Your task to perform on an android device: What's the weather today? Image 0: 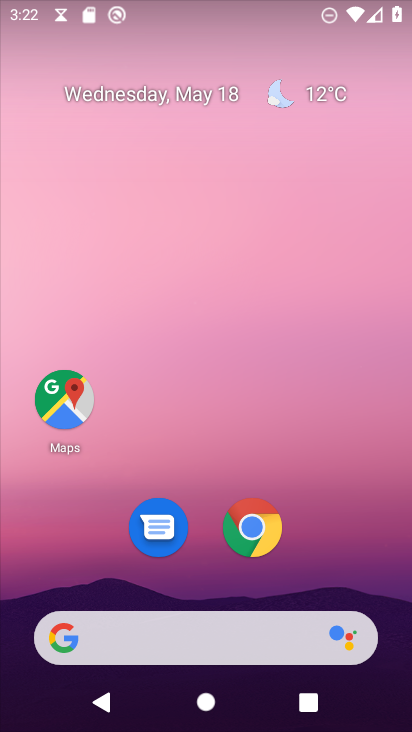
Step 0: click (316, 95)
Your task to perform on an android device: What's the weather today? Image 1: 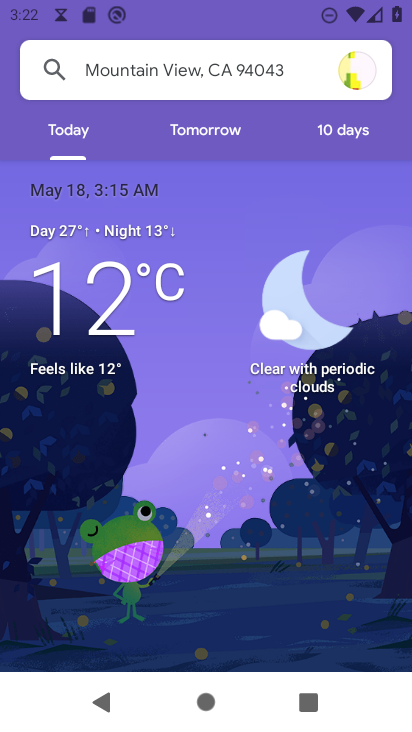
Step 1: task complete